Your task to perform on an android device: Go to Reddit.com Image 0: 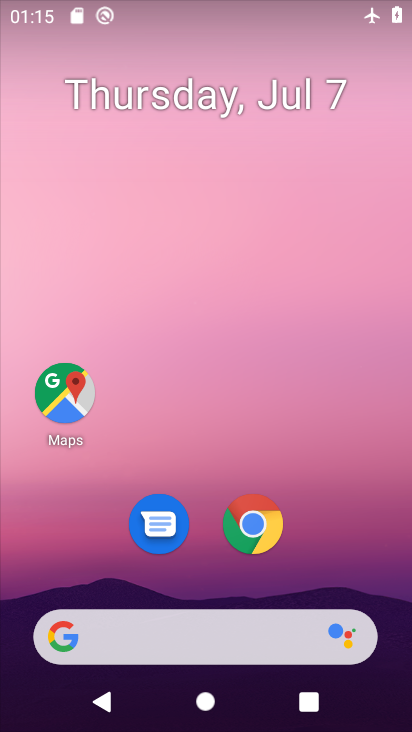
Step 0: click (181, 643)
Your task to perform on an android device: Go to Reddit.com Image 1: 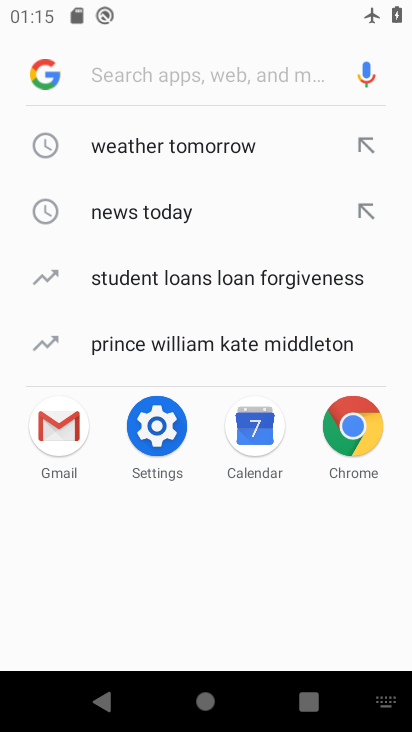
Step 1: type "reddit.com"
Your task to perform on an android device: Go to Reddit.com Image 2: 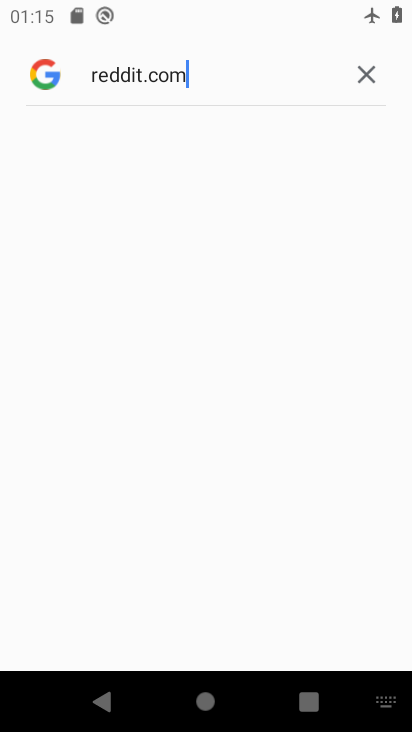
Step 2: task complete